Your task to perform on an android device: open the mobile data screen to see how much data has been used Image 0: 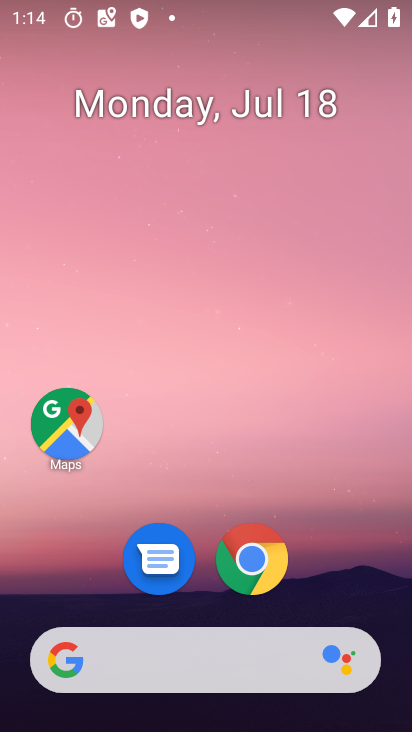
Step 0: drag from (207, 605) to (285, 136)
Your task to perform on an android device: open the mobile data screen to see how much data has been used Image 1: 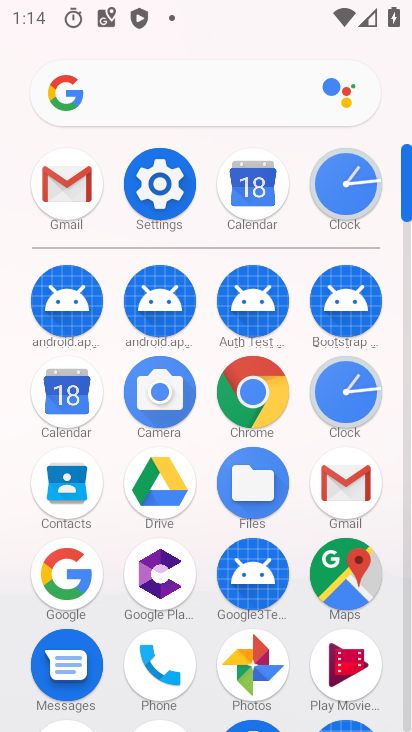
Step 1: click (149, 192)
Your task to perform on an android device: open the mobile data screen to see how much data has been used Image 2: 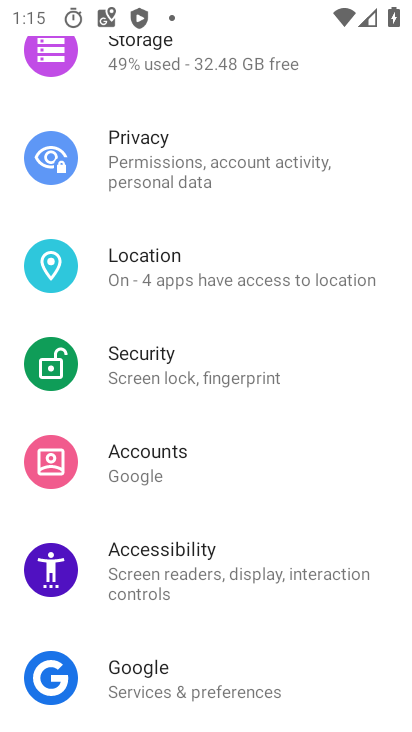
Step 2: drag from (274, 186) to (106, 725)
Your task to perform on an android device: open the mobile data screen to see how much data has been used Image 3: 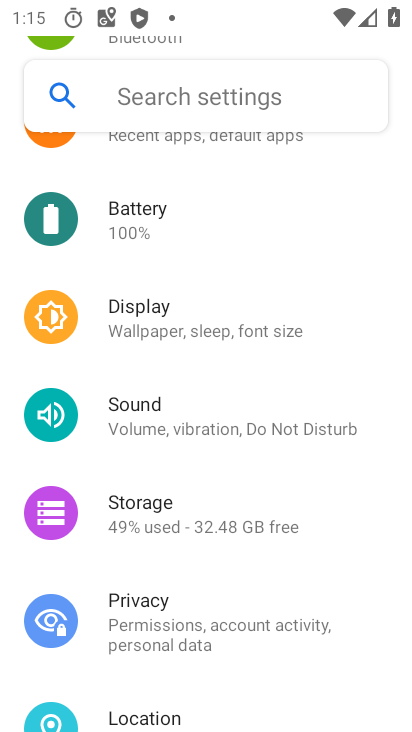
Step 3: drag from (228, 225) to (167, 712)
Your task to perform on an android device: open the mobile data screen to see how much data has been used Image 4: 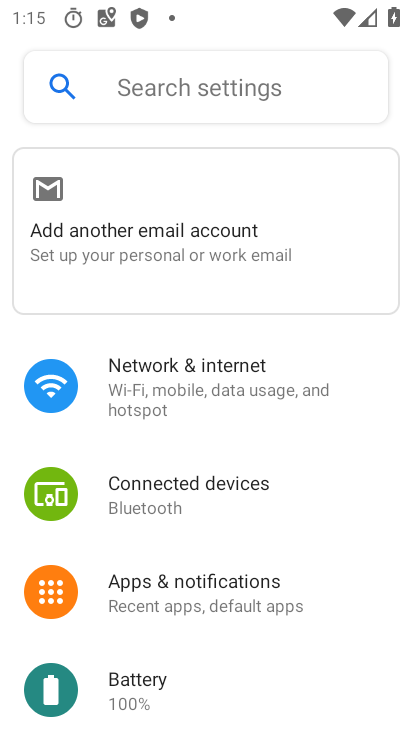
Step 4: click (197, 399)
Your task to perform on an android device: open the mobile data screen to see how much data has been used Image 5: 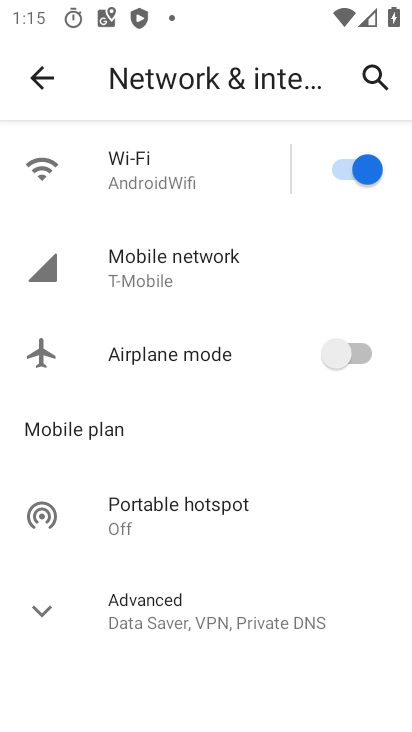
Step 5: click (149, 259)
Your task to perform on an android device: open the mobile data screen to see how much data has been used Image 6: 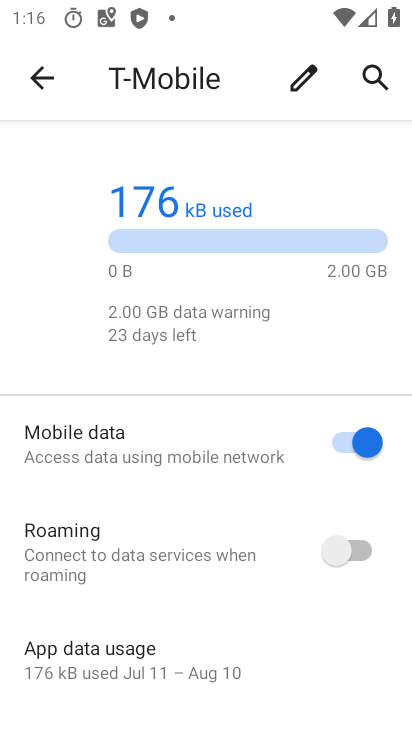
Step 6: click (94, 690)
Your task to perform on an android device: open the mobile data screen to see how much data has been used Image 7: 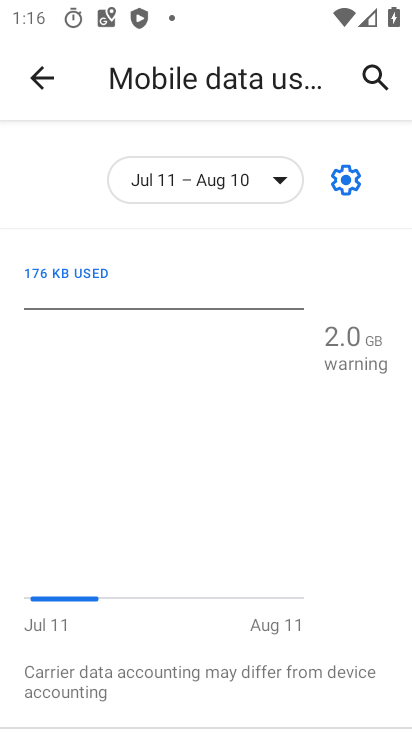
Step 7: task complete